Your task to perform on an android device: Clear the cart on amazon.com. Search for "alienware aurora" on amazon.com, select the first entry, add it to the cart, then select checkout. Image 0: 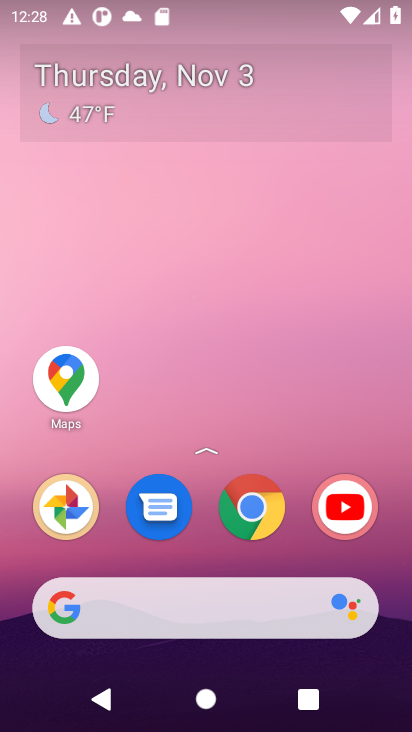
Step 0: click (207, 608)
Your task to perform on an android device: Clear the cart on amazon.com. Search for "alienware aurora" on amazon.com, select the first entry, add it to the cart, then select checkout. Image 1: 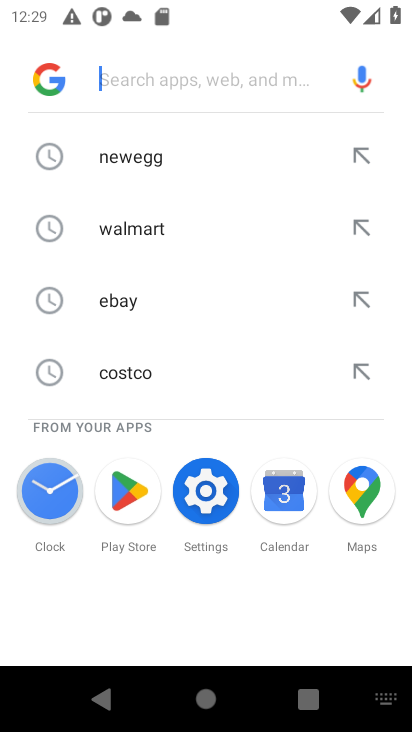
Step 1: type "amazon"
Your task to perform on an android device: Clear the cart on amazon.com. Search for "alienware aurora" on amazon.com, select the first entry, add it to the cart, then select checkout. Image 2: 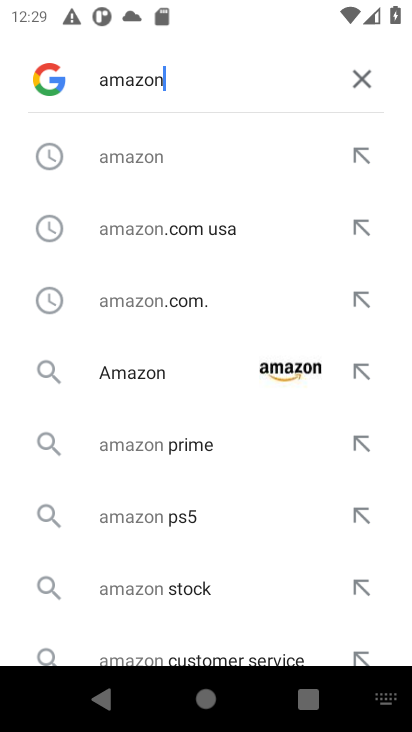
Step 2: click (112, 142)
Your task to perform on an android device: Clear the cart on amazon.com. Search for "alienware aurora" on amazon.com, select the first entry, add it to the cart, then select checkout. Image 3: 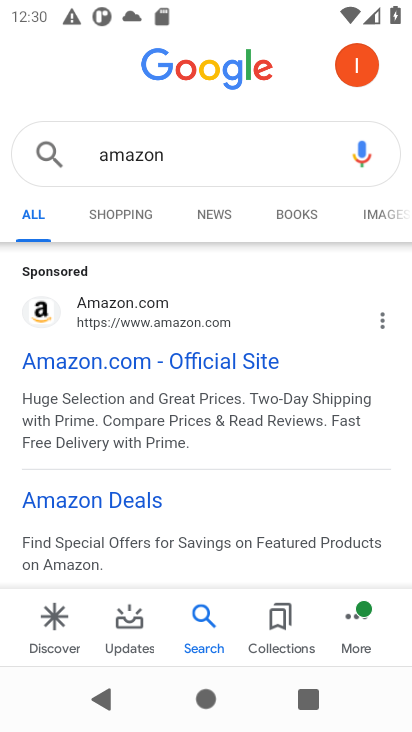
Step 3: click (88, 394)
Your task to perform on an android device: Clear the cart on amazon.com. Search for "alienware aurora" on amazon.com, select the first entry, add it to the cart, then select checkout. Image 4: 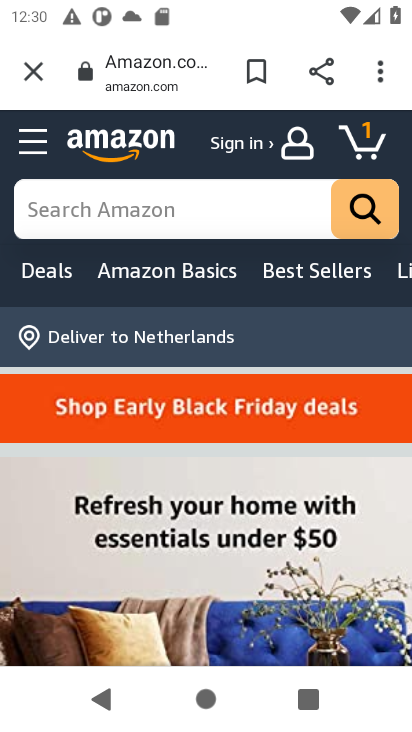
Step 4: click (144, 203)
Your task to perform on an android device: Clear the cart on amazon.com. Search for "alienware aurora" on amazon.com, select the first entry, add it to the cart, then select checkout. Image 5: 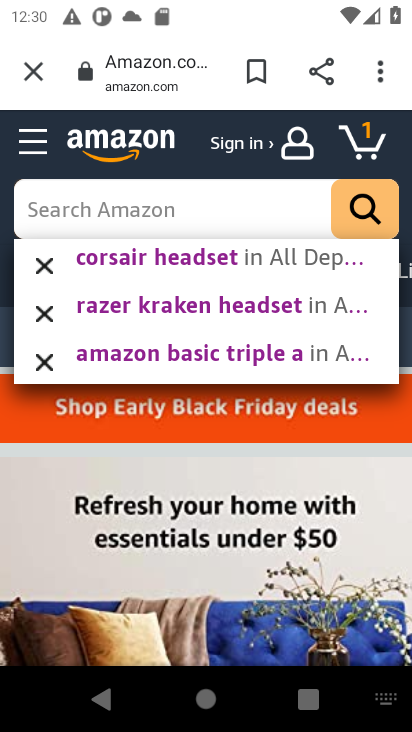
Step 5: type "alienware auro"
Your task to perform on an android device: Clear the cart on amazon.com. Search for "alienware aurora" on amazon.com, select the first entry, add it to the cart, then select checkout. Image 6: 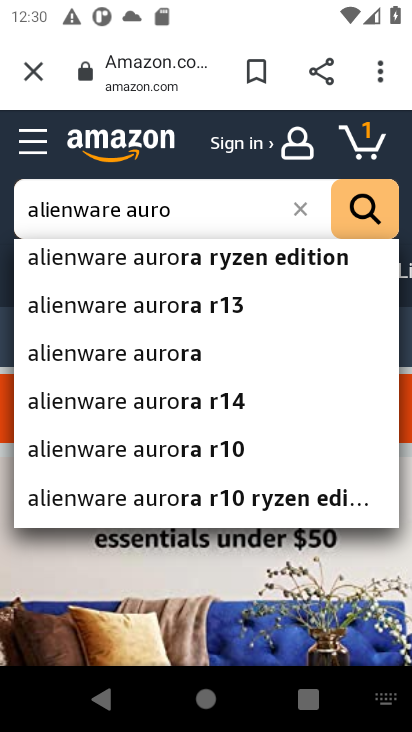
Step 6: click (212, 264)
Your task to perform on an android device: Clear the cart on amazon.com. Search for "alienware aurora" on amazon.com, select the first entry, add it to the cart, then select checkout. Image 7: 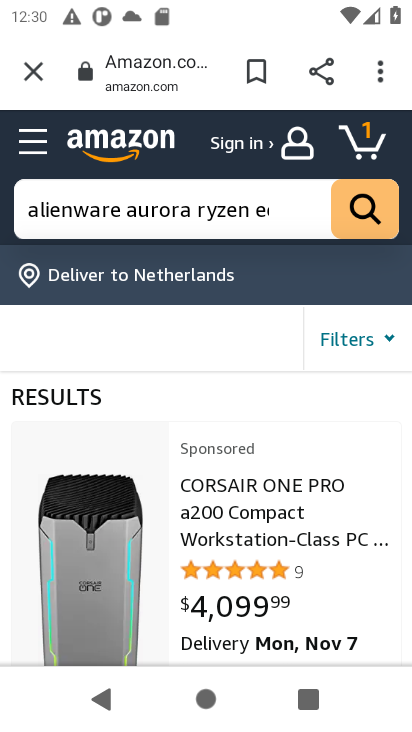
Step 7: click (264, 483)
Your task to perform on an android device: Clear the cart on amazon.com. Search for "alienware aurora" on amazon.com, select the first entry, add it to the cart, then select checkout. Image 8: 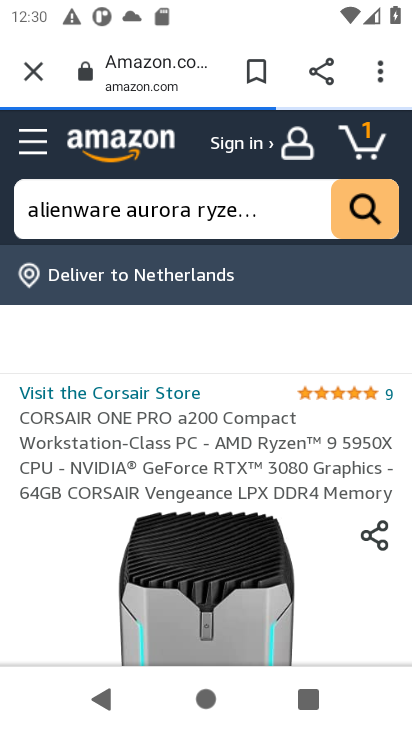
Step 8: drag from (232, 610) to (225, 349)
Your task to perform on an android device: Clear the cart on amazon.com. Search for "alienware aurora" on amazon.com, select the first entry, add it to the cart, then select checkout. Image 9: 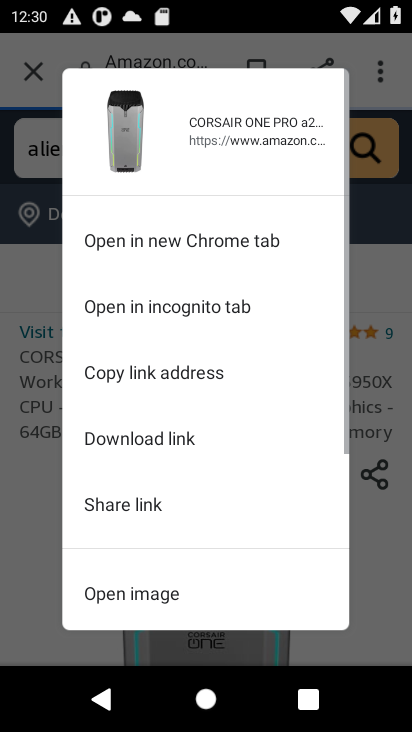
Step 9: click (384, 599)
Your task to perform on an android device: Clear the cart on amazon.com. Search for "alienware aurora" on amazon.com, select the first entry, add it to the cart, then select checkout. Image 10: 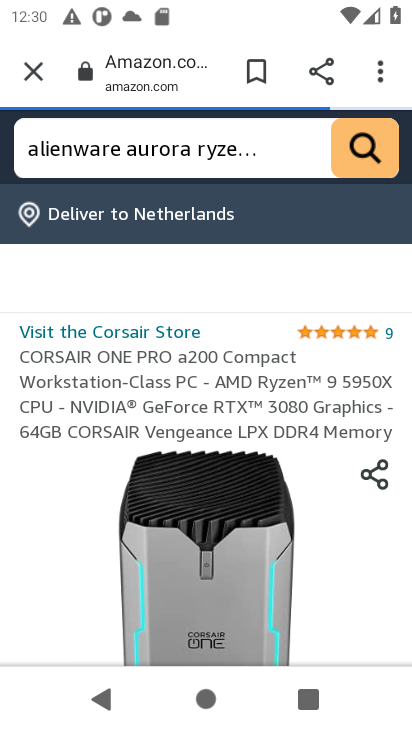
Step 10: drag from (384, 599) to (343, 192)
Your task to perform on an android device: Clear the cart on amazon.com. Search for "alienware aurora" on amazon.com, select the first entry, add it to the cart, then select checkout. Image 11: 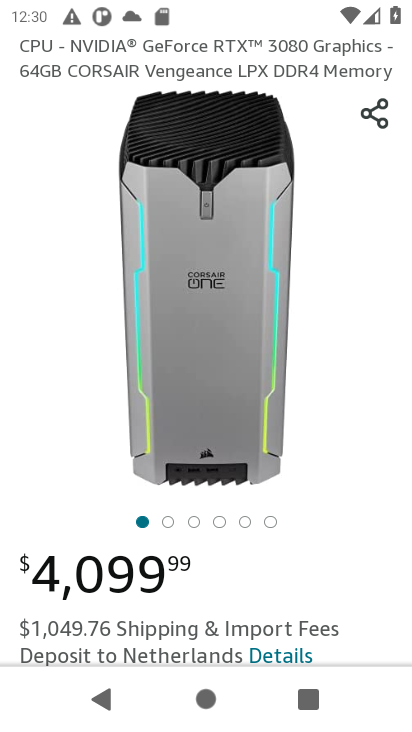
Step 11: drag from (294, 577) to (265, 178)
Your task to perform on an android device: Clear the cart on amazon.com. Search for "alienware aurora" on amazon.com, select the first entry, add it to the cart, then select checkout. Image 12: 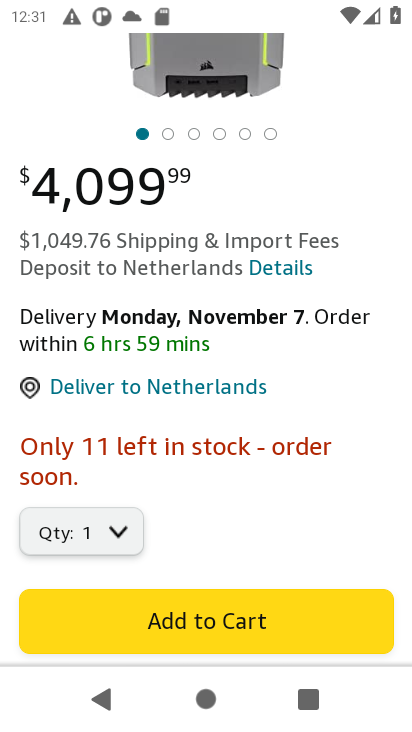
Step 12: click (137, 603)
Your task to perform on an android device: Clear the cart on amazon.com. Search for "alienware aurora" on amazon.com, select the first entry, add it to the cart, then select checkout. Image 13: 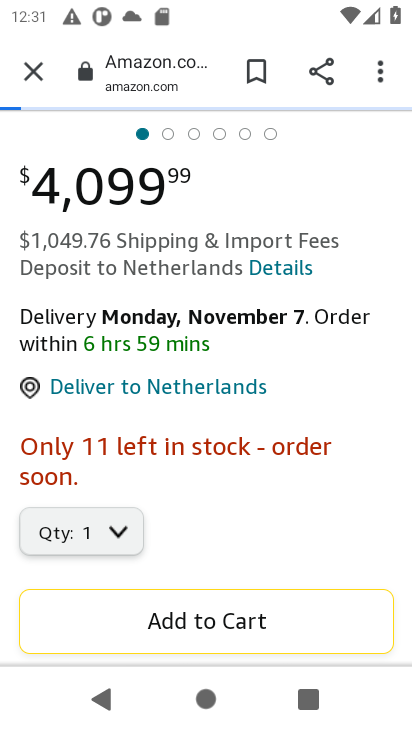
Step 13: task complete